Your task to perform on an android device: Open Youtube and go to the subscriptions tab Image 0: 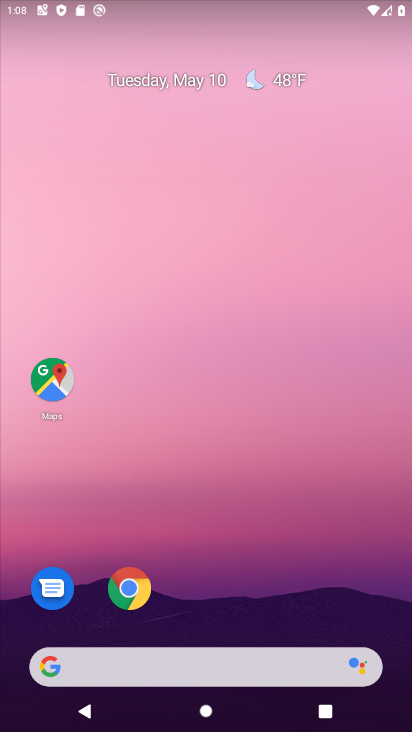
Step 0: drag from (265, 584) to (311, 69)
Your task to perform on an android device: Open Youtube and go to the subscriptions tab Image 1: 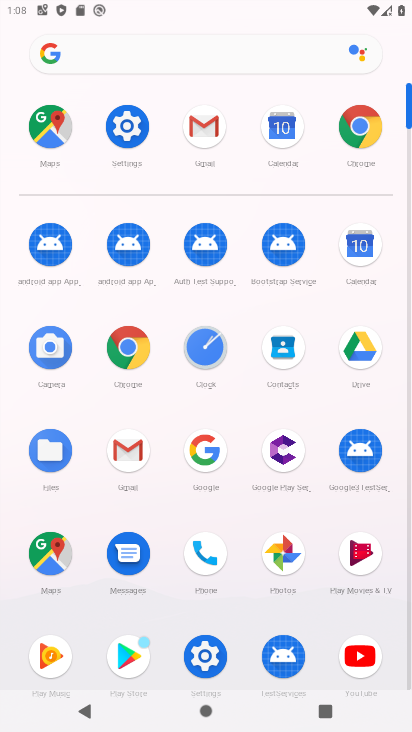
Step 1: click (369, 654)
Your task to perform on an android device: Open Youtube and go to the subscriptions tab Image 2: 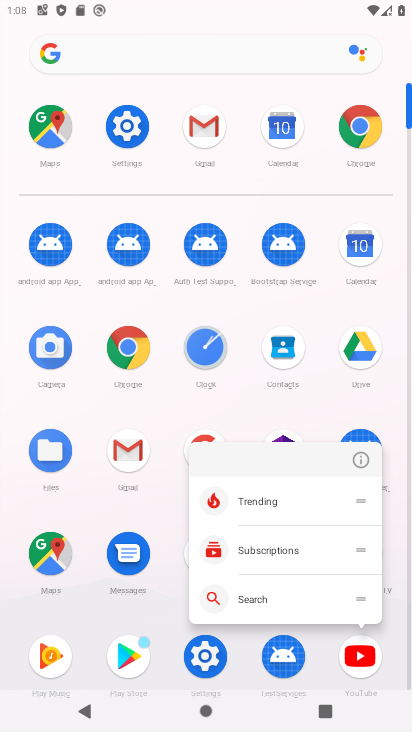
Step 2: click (346, 659)
Your task to perform on an android device: Open Youtube and go to the subscriptions tab Image 3: 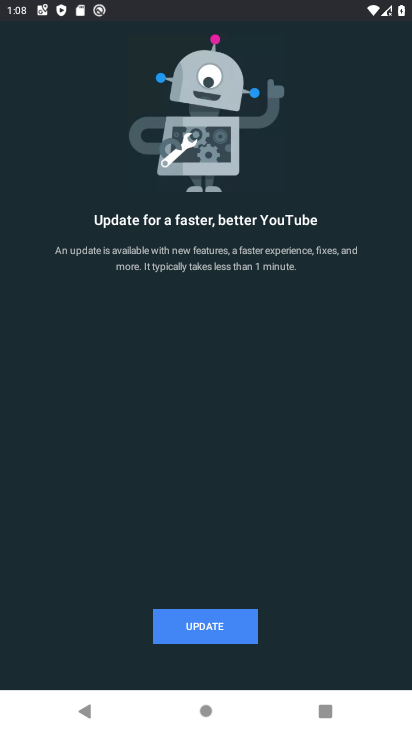
Step 3: click (213, 614)
Your task to perform on an android device: Open Youtube and go to the subscriptions tab Image 4: 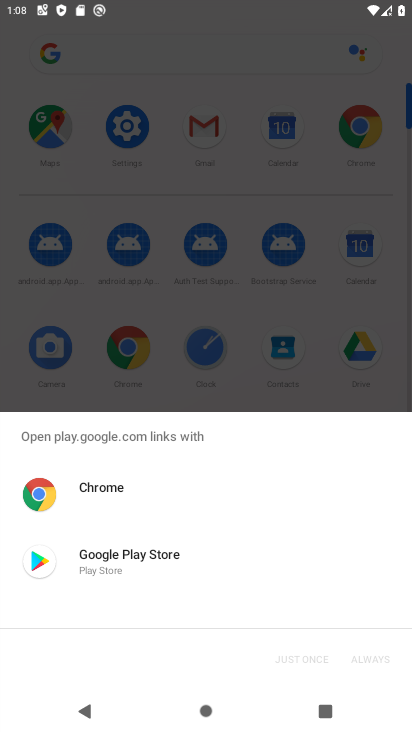
Step 4: press back button
Your task to perform on an android device: Open Youtube and go to the subscriptions tab Image 5: 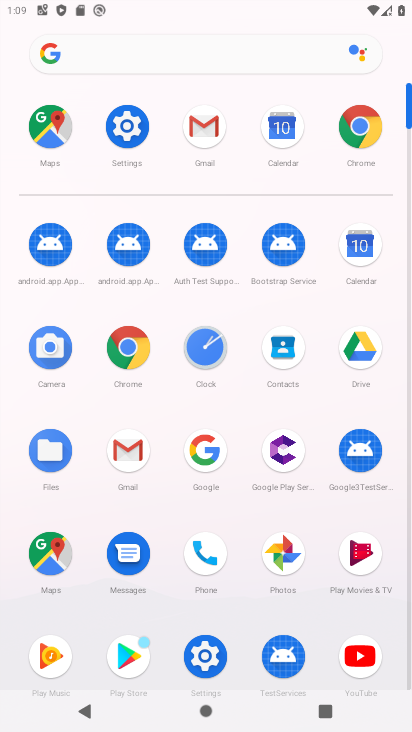
Step 5: click (350, 650)
Your task to perform on an android device: Open Youtube and go to the subscriptions tab Image 6: 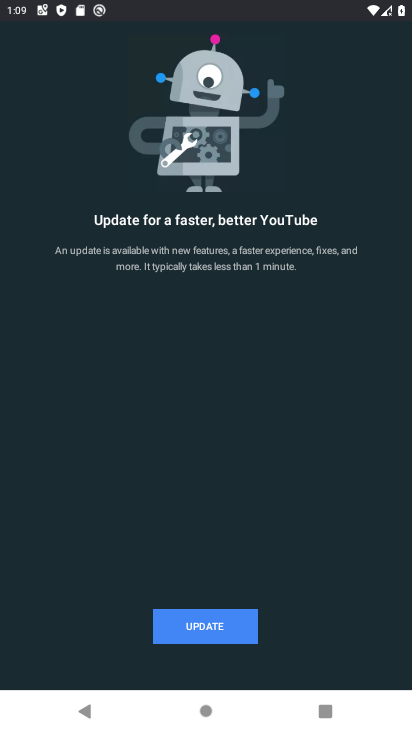
Step 6: task complete